Your task to perform on an android device: open app "AliExpress" (install if not already installed), go to login, and select forgot password Image 0: 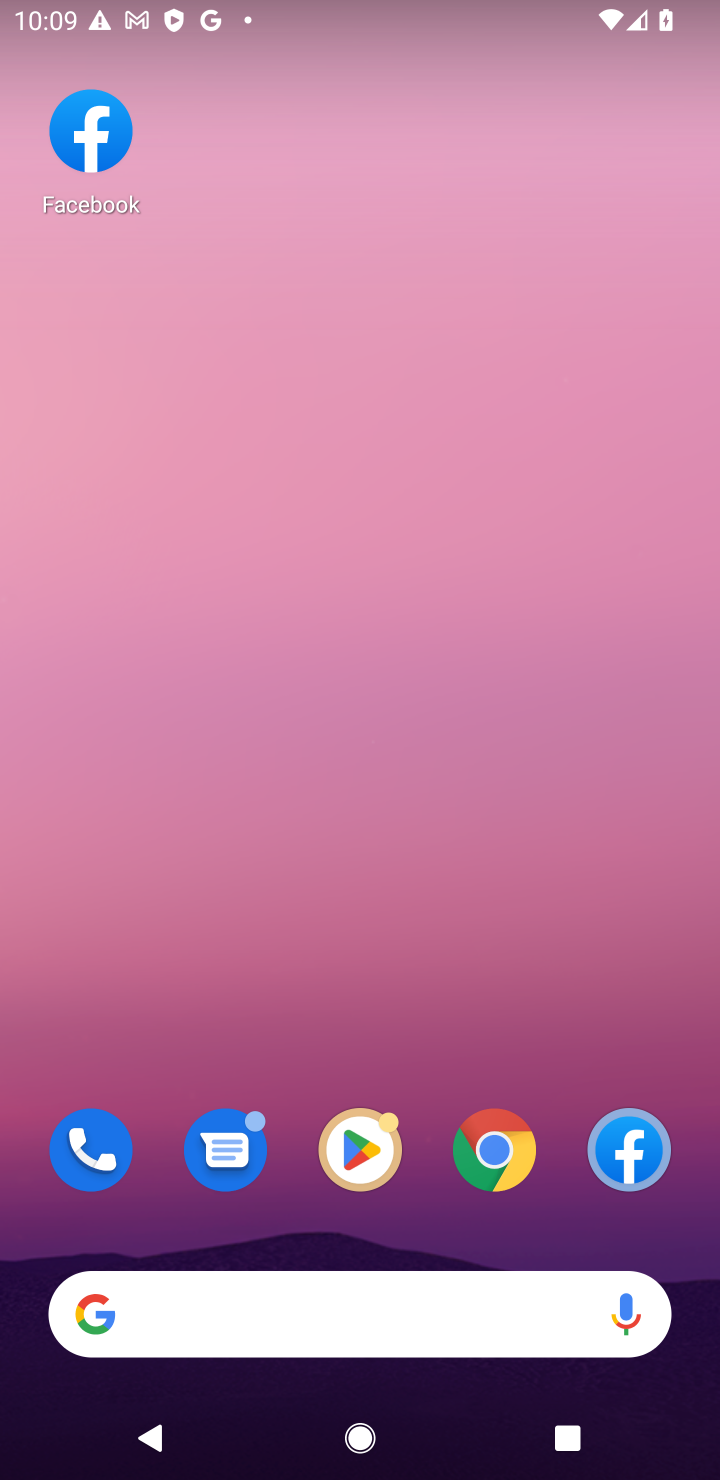
Step 0: click (385, 1127)
Your task to perform on an android device: open app "AliExpress" (install if not already installed), go to login, and select forgot password Image 1: 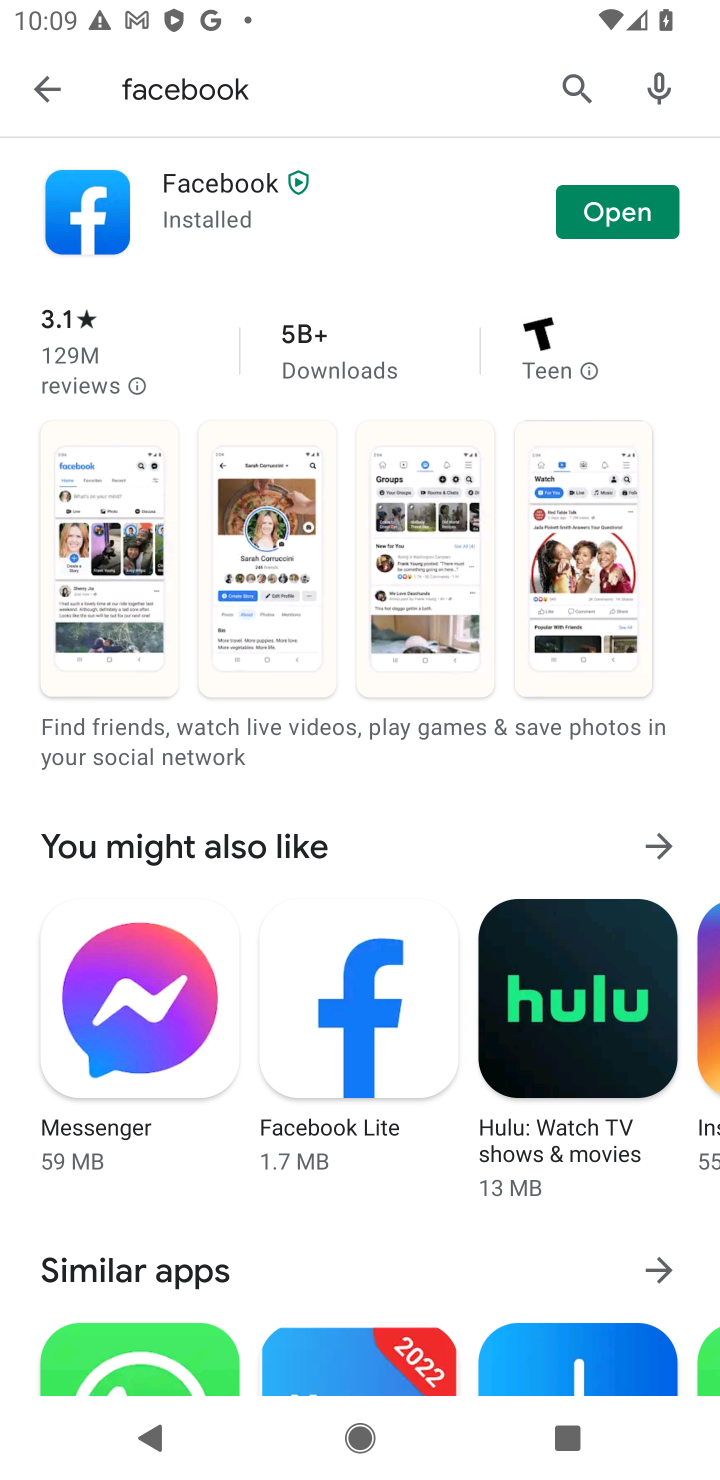
Step 1: click (574, 92)
Your task to perform on an android device: open app "AliExpress" (install if not already installed), go to login, and select forgot password Image 2: 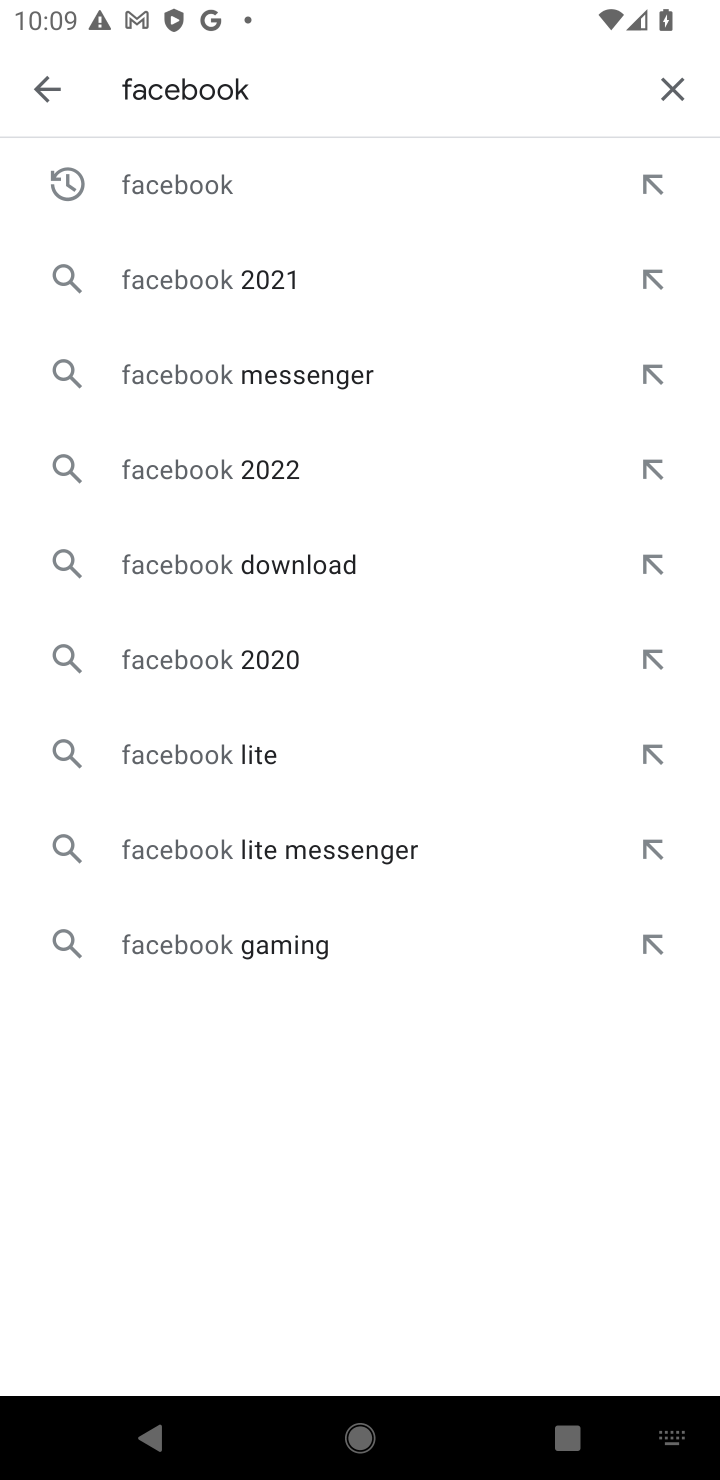
Step 2: click (675, 92)
Your task to perform on an android device: open app "AliExpress" (install if not already installed), go to login, and select forgot password Image 3: 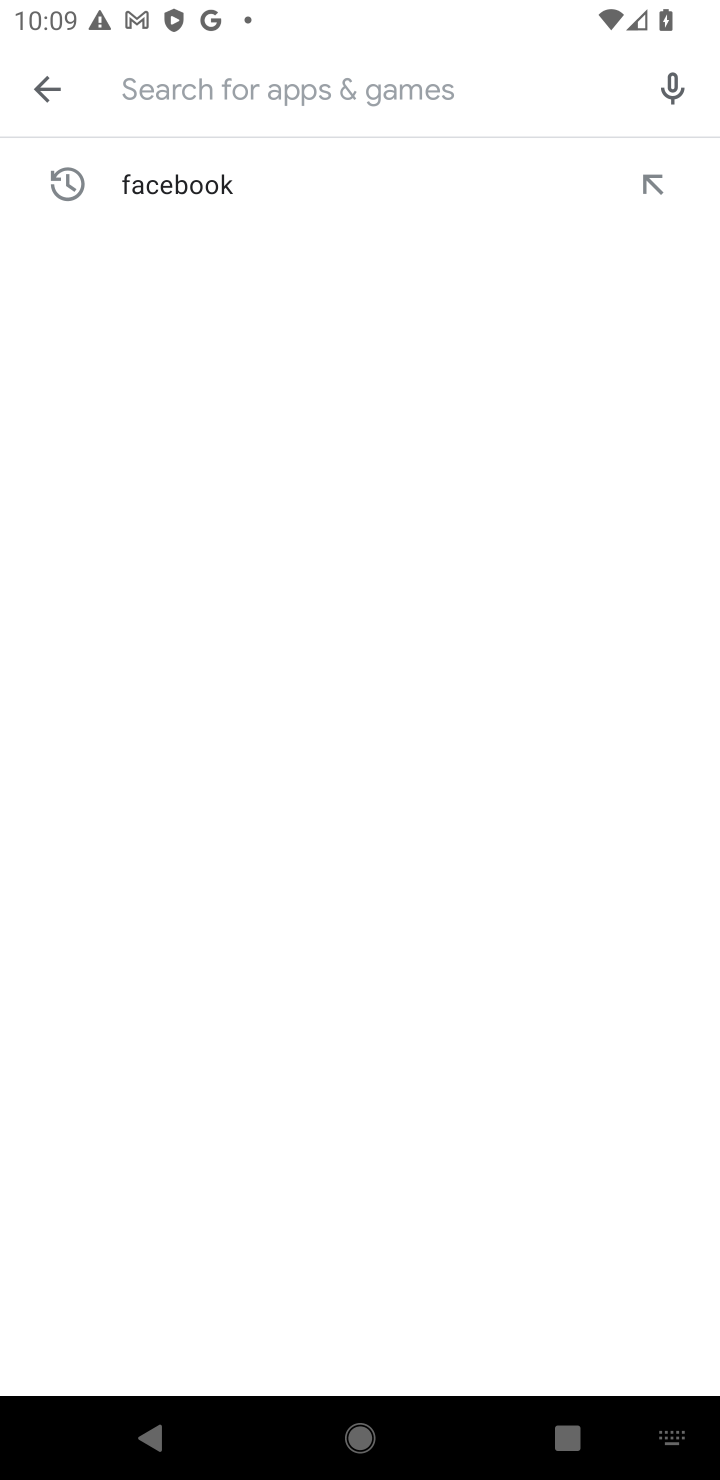
Step 3: type "AliExpress"
Your task to perform on an android device: open app "AliExpress" (install if not already installed), go to login, and select forgot password Image 4: 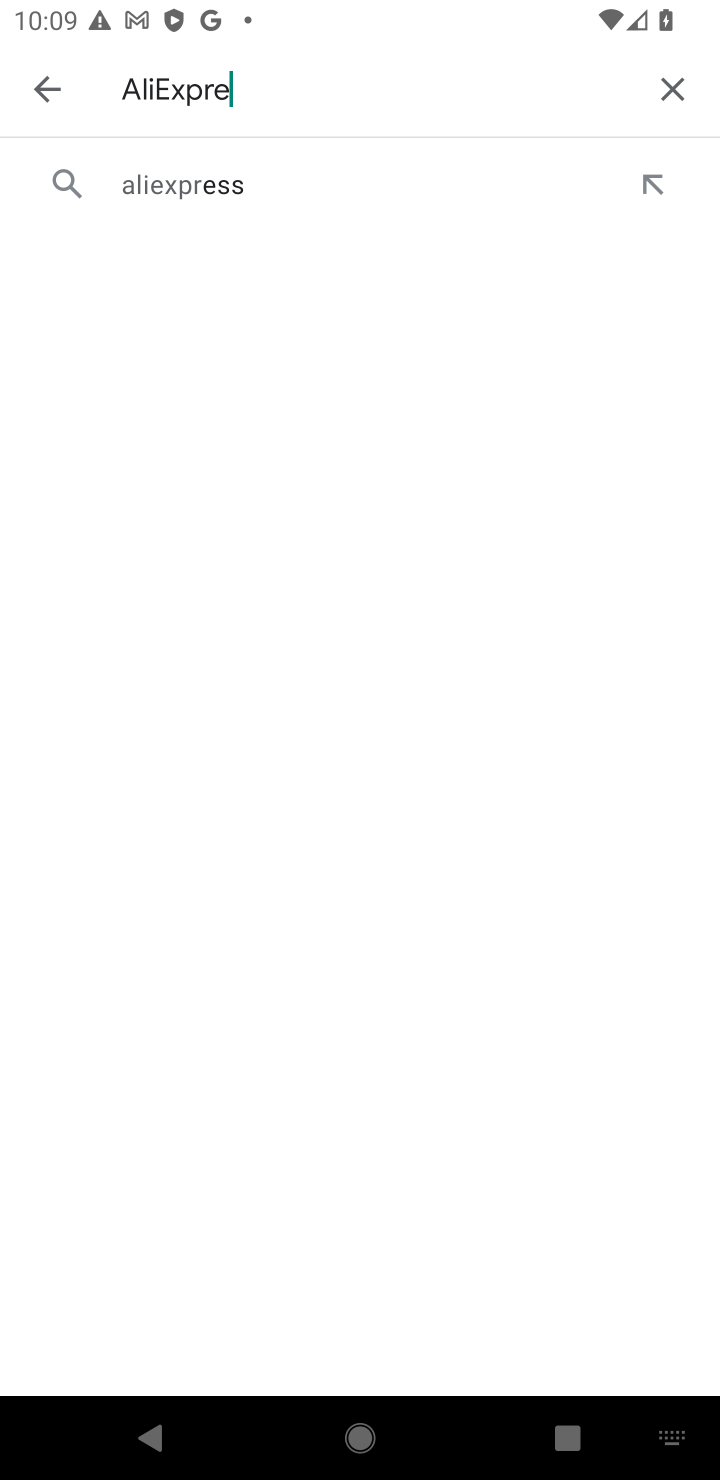
Step 4: type ""
Your task to perform on an android device: open app "AliExpress" (install if not already installed), go to login, and select forgot password Image 5: 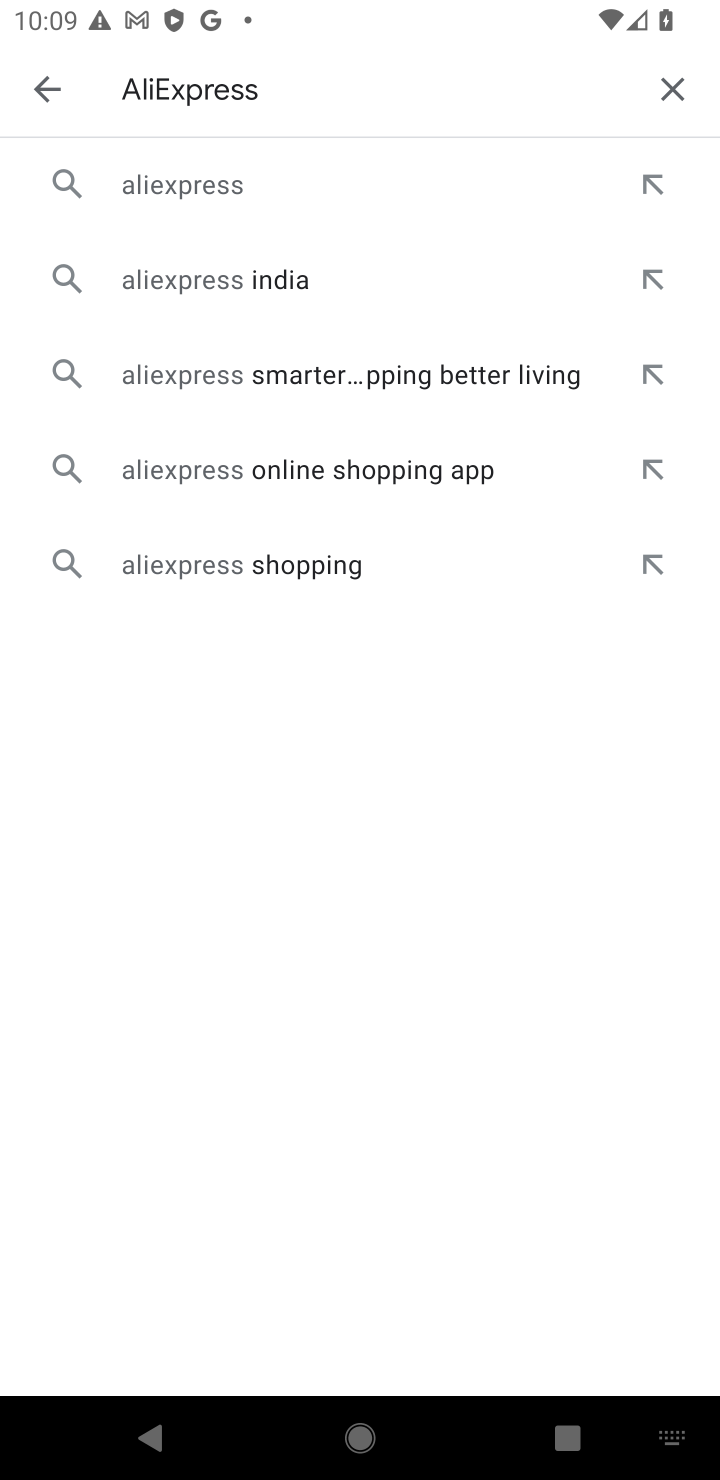
Step 5: click (283, 185)
Your task to perform on an android device: open app "AliExpress" (install if not already installed), go to login, and select forgot password Image 6: 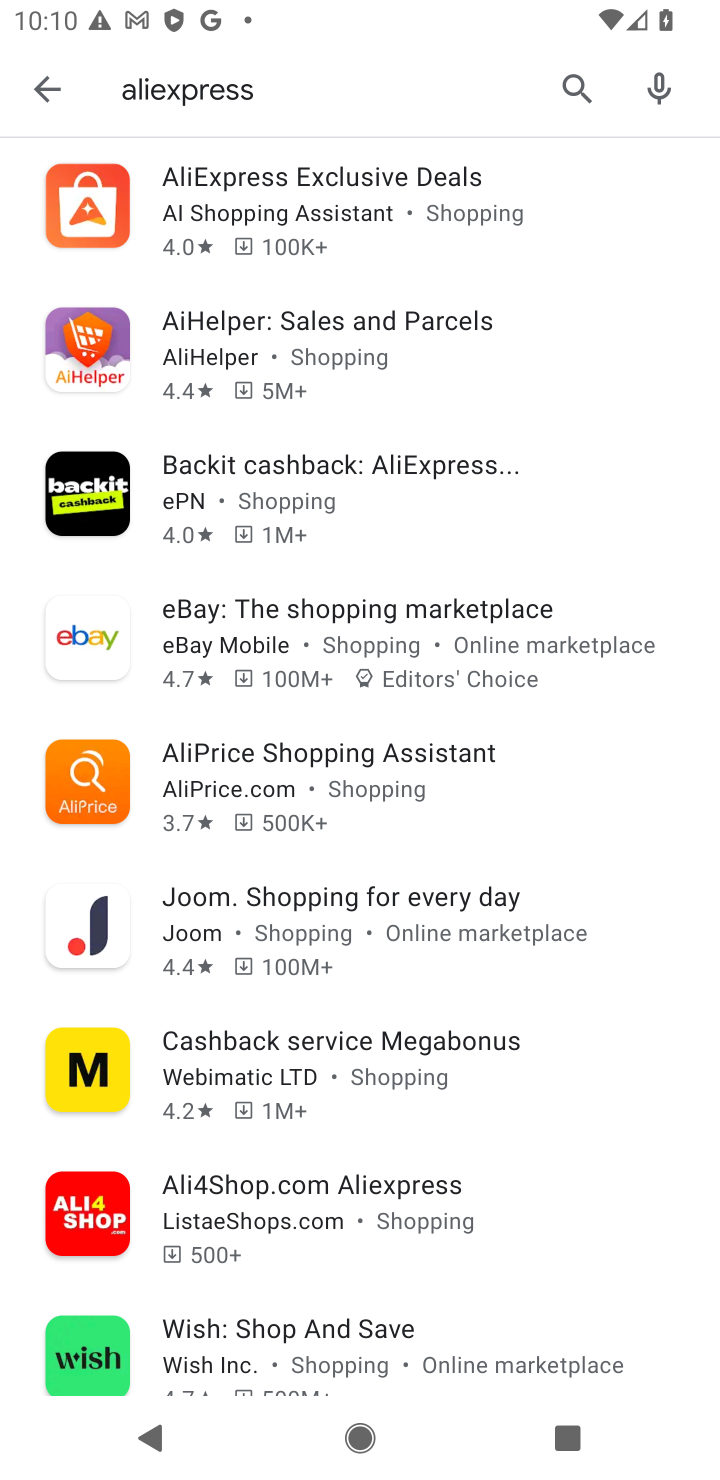
Step 6: click (363, 184)
Your task to perform on an android device: open app "AliExpress" (install if not already installed), go to login, and select forgot password Image 7: 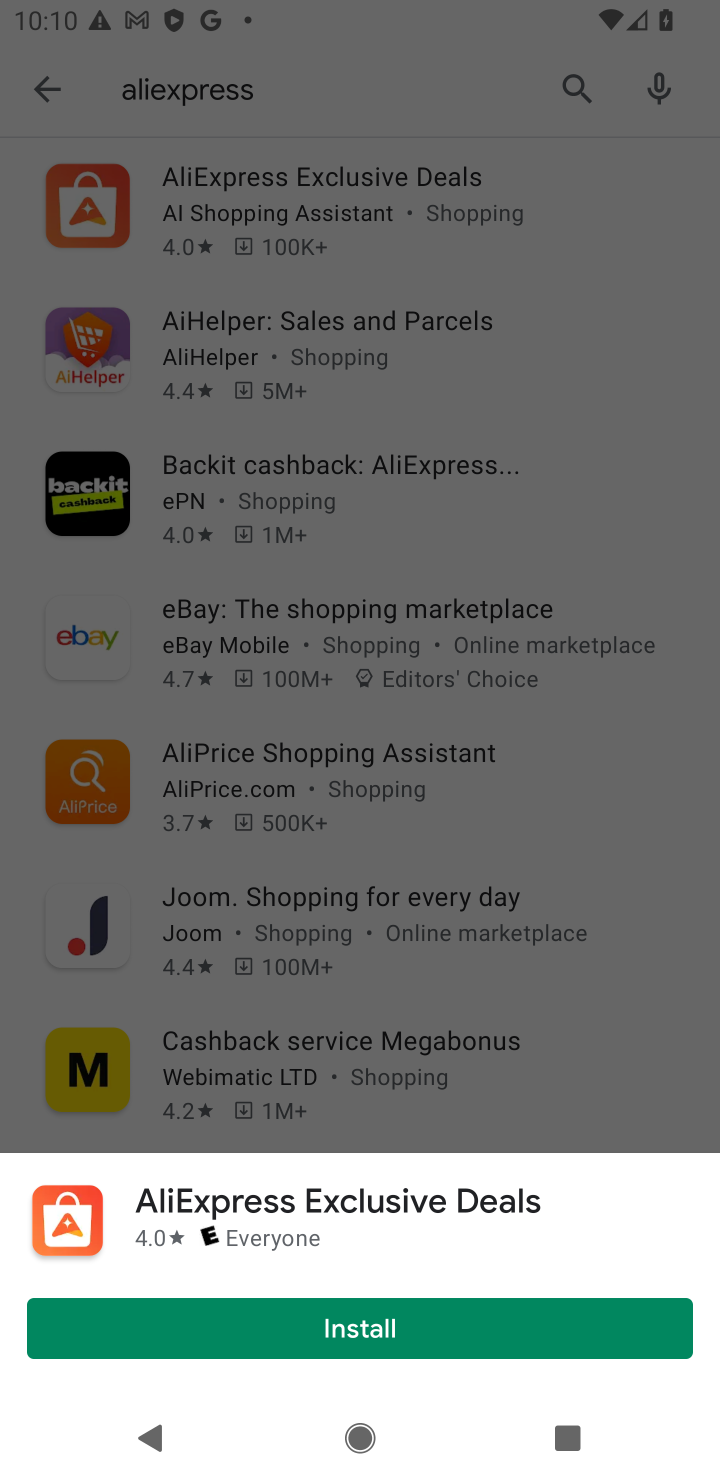
Step 7: click (375, 1307)
Your task to perform on an android device: open app "AliExpress" (install if not already installed), go to login, and select forgot password Image 8: 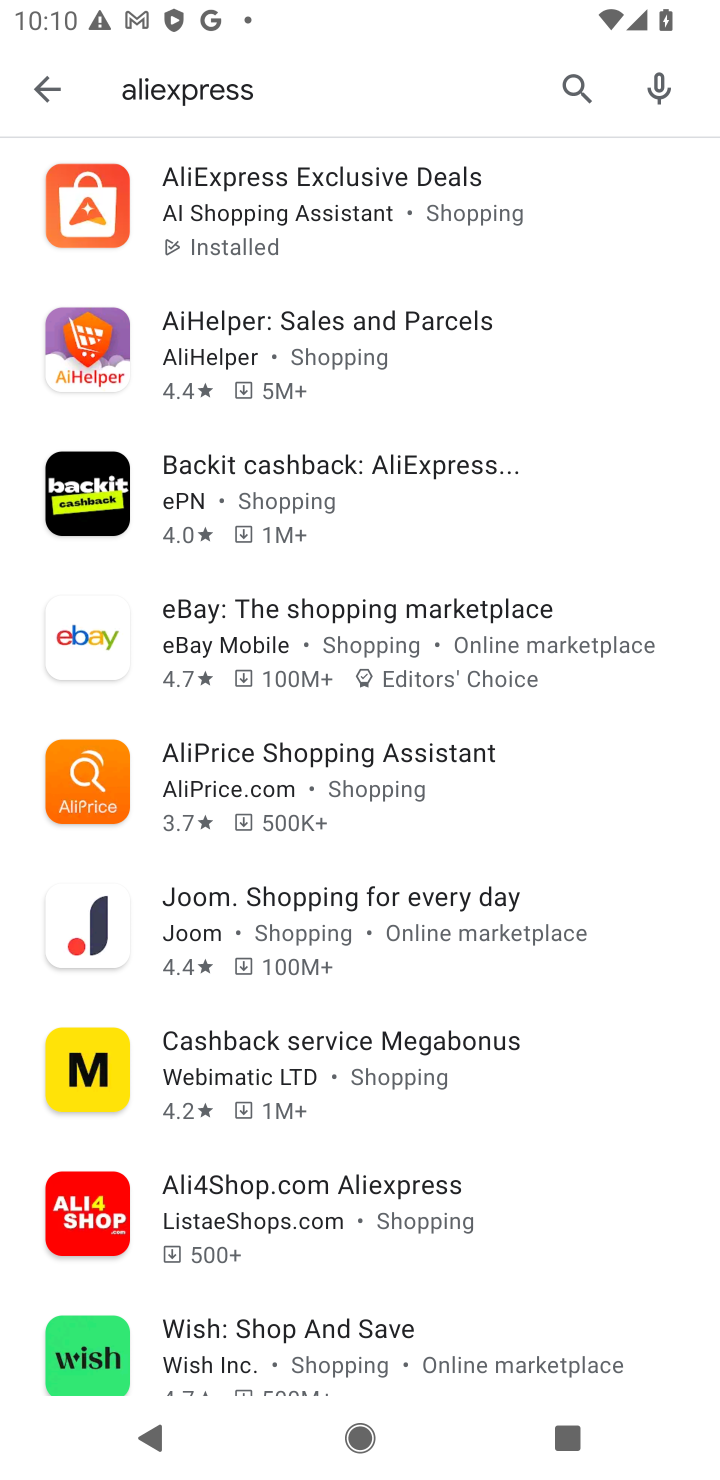
Step 8: click (288, 222)
Your task to perform on an android device: open app "AliExpress" (install if not already installed), go to login, and select forgot password Image 9: 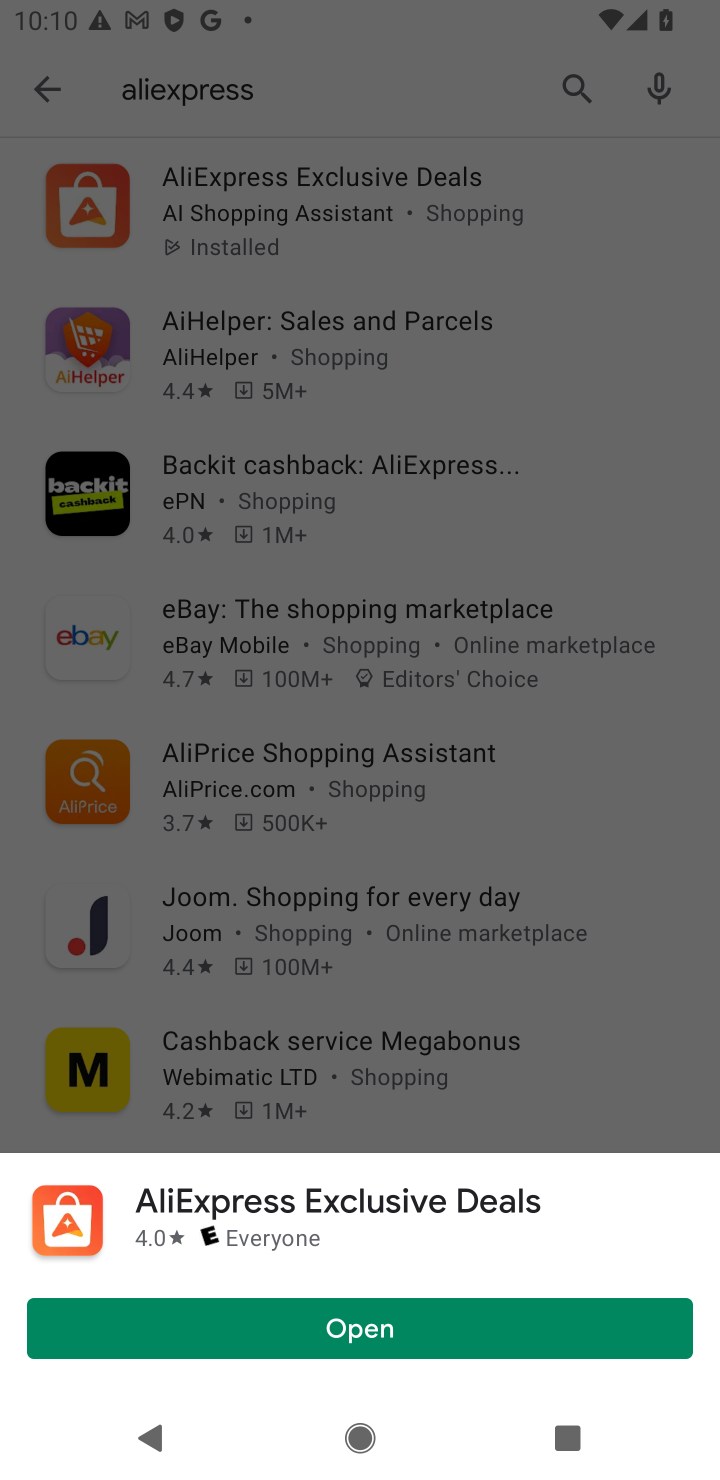
Step 9: click (438, 1332)
Your task to perform on an android device: open app "AliExpress" (install if not already installed), go to login, and select forgot password Image 10: 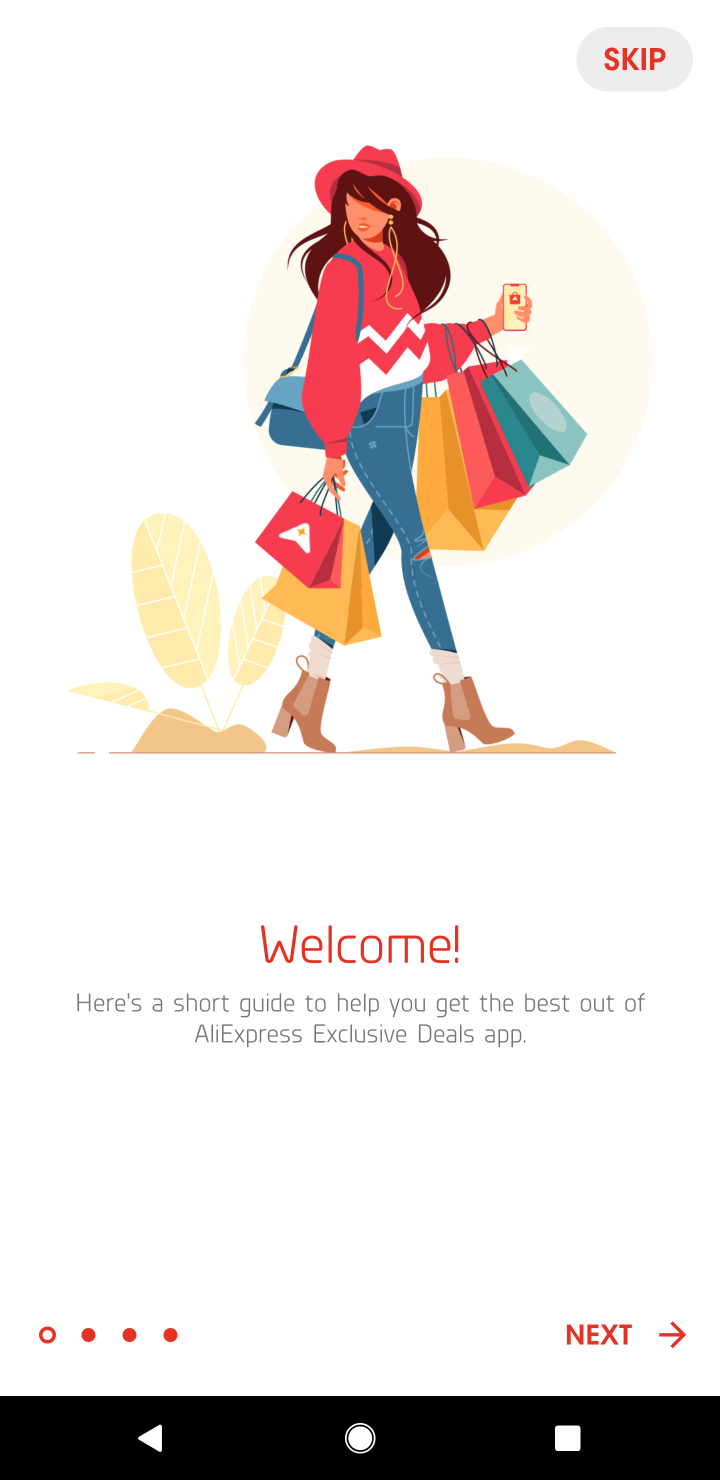
Step 10: task complete